Your task to perform on an android device: Check out the best rated 4k TV on Best Buy. Image 0: 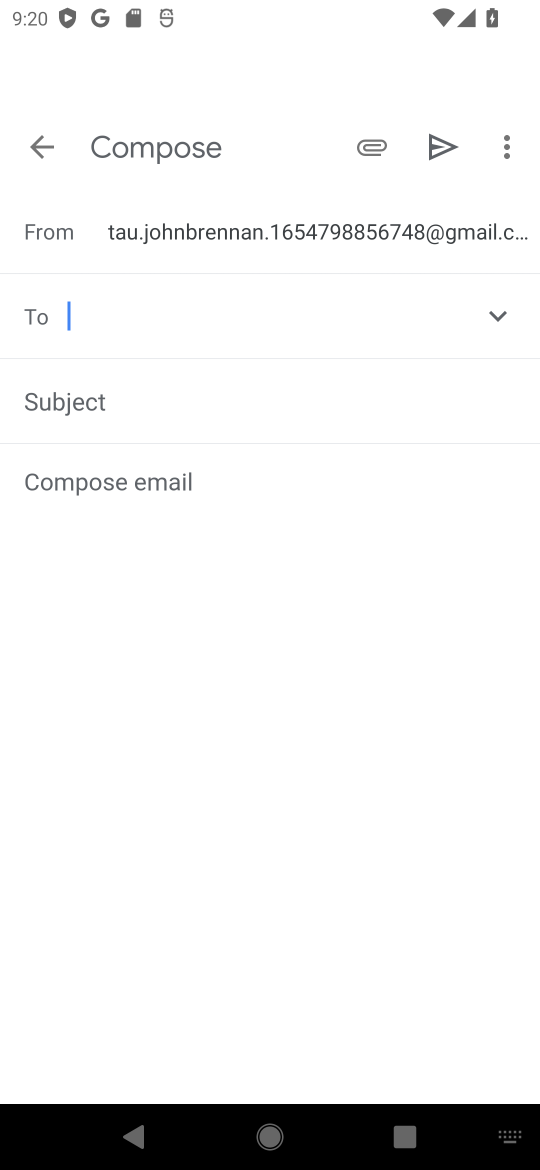
Step 0: press home button
Your task to perform on an android device: Check out the best rated 4k TV on Best Buy. Image 1: 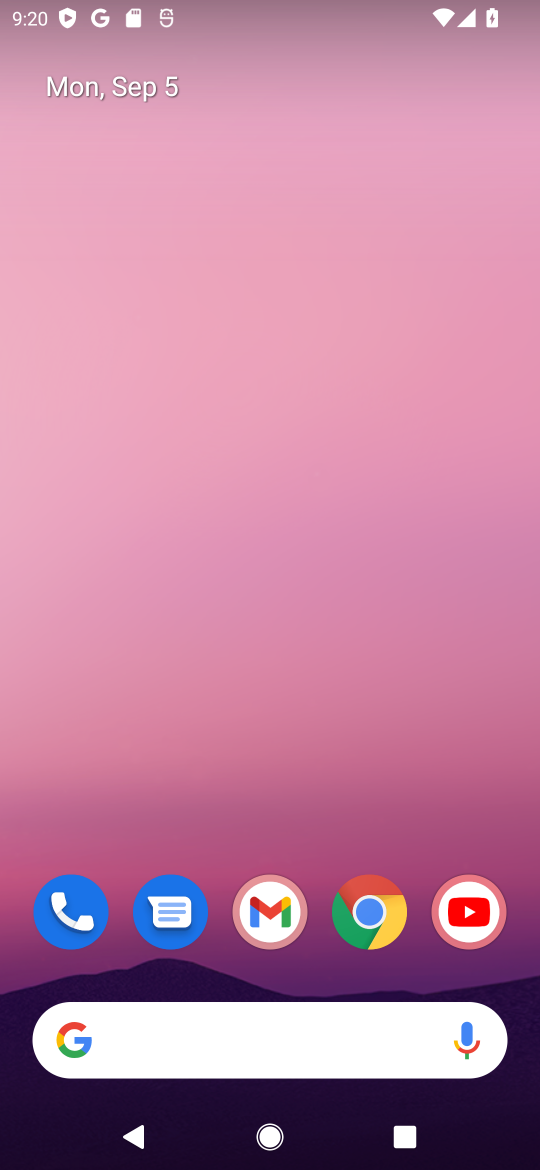
Step 1: click (351, 920)
Your task to perform on an android device: Check out the best rated 4k TV on Best Buy. Image 2: 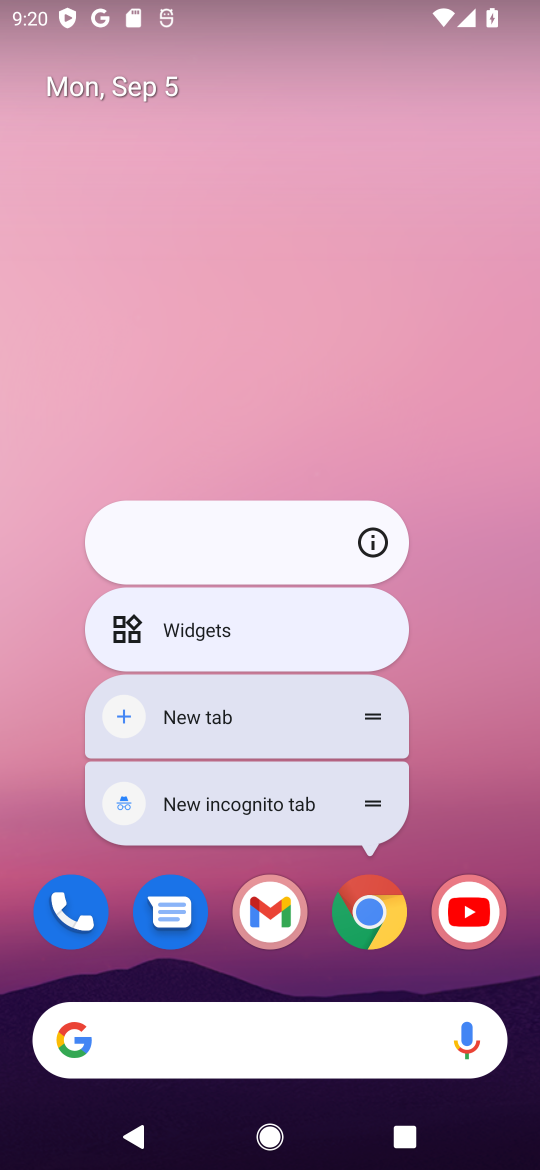
Step 2: click (385, 906)
Your task to perform on an android device: Check out the best rated 4k TV on Best Buy. Image 3: 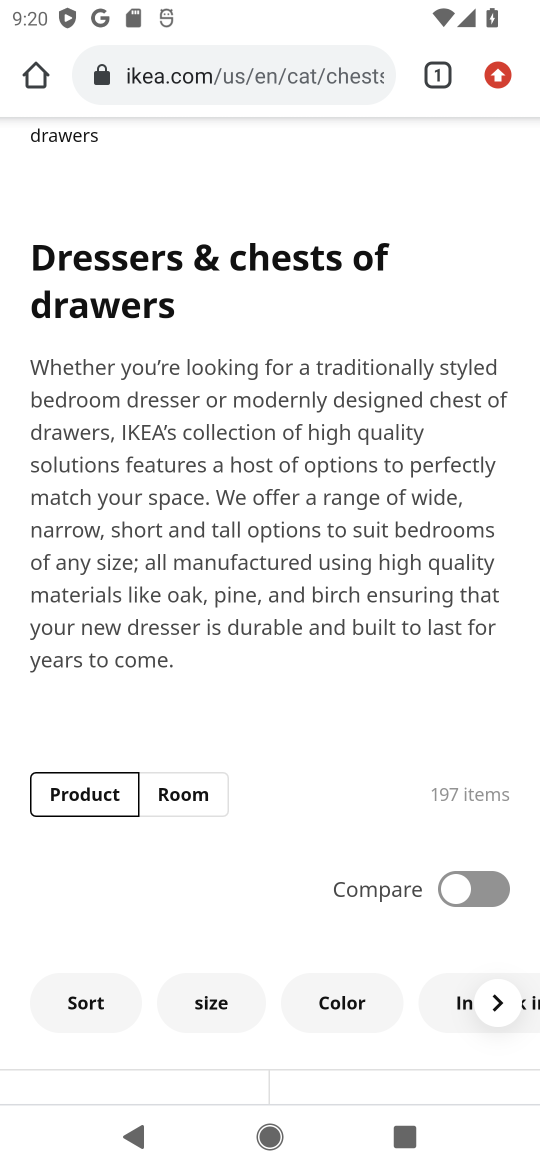
Step 3: click (269, 81)
Your task to perform on an android device: Check out the best rated 4k TV on Best Buy. Image 4: 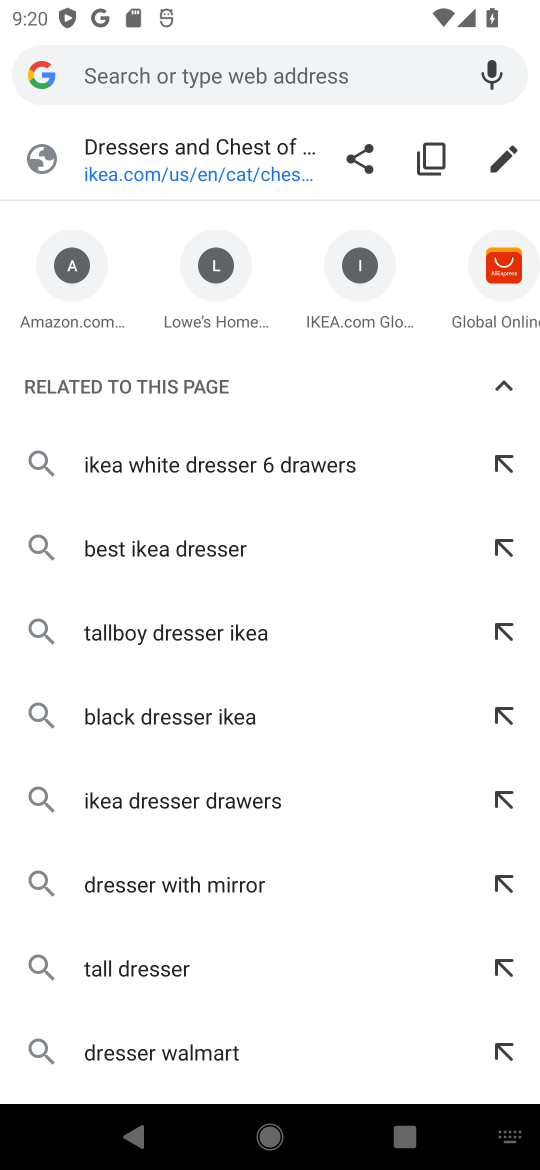
Step 4: type "best buy"
Your task to perform on an android device: Check out the best rated 4k TV on Best Buy. Image 5: 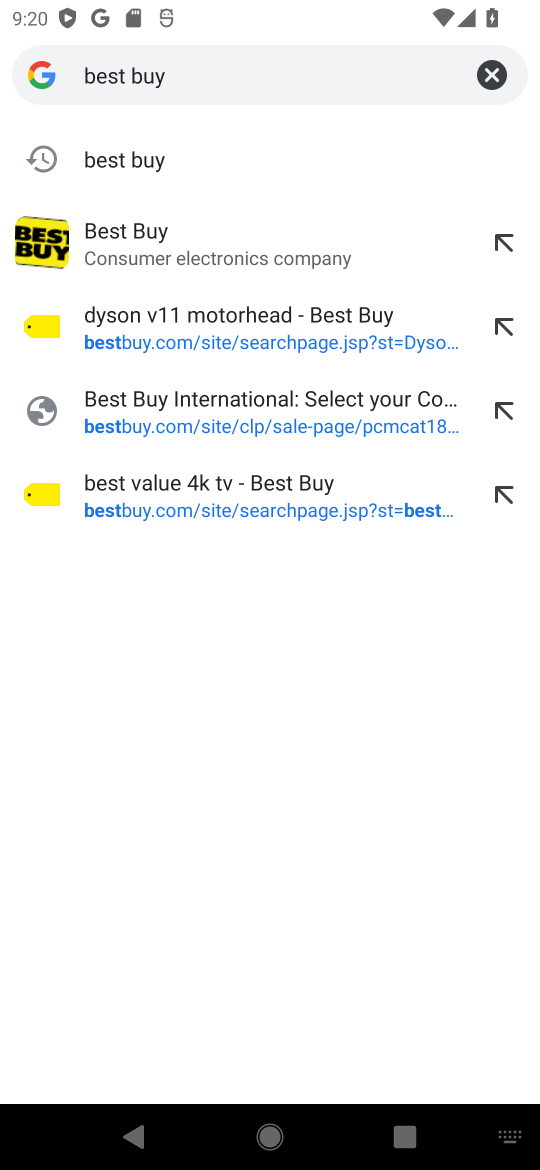
Step 5: press enter
Your task to perform on an android device: Check out the best rated 4k TV on Best Buy. Image 6: 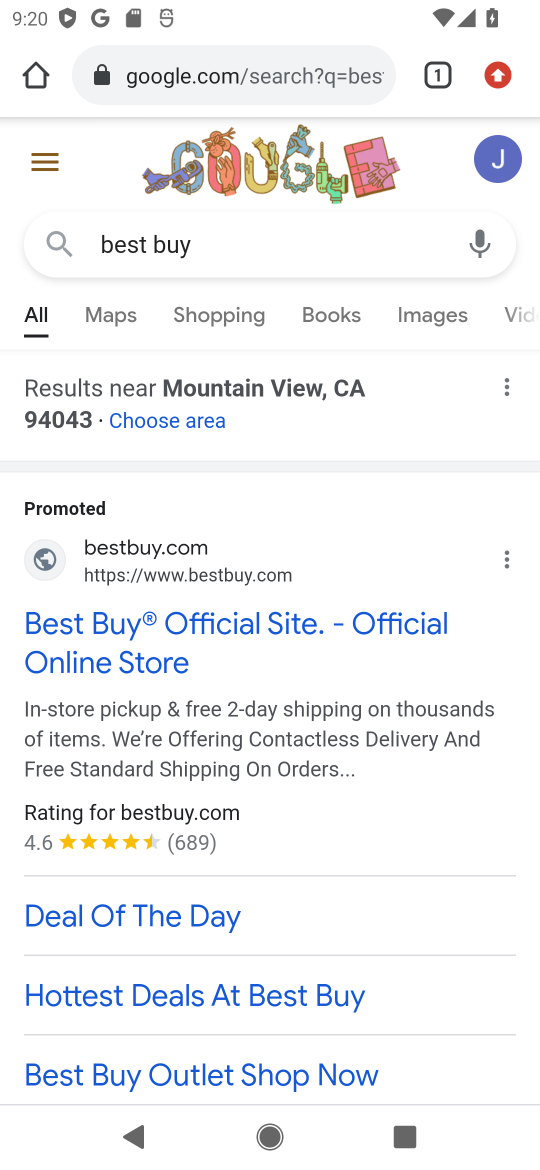
Step 6: click (129, 622)
Your task to perform on an android device: Check out the best rated 4k TV on Best Buy. Image 7: 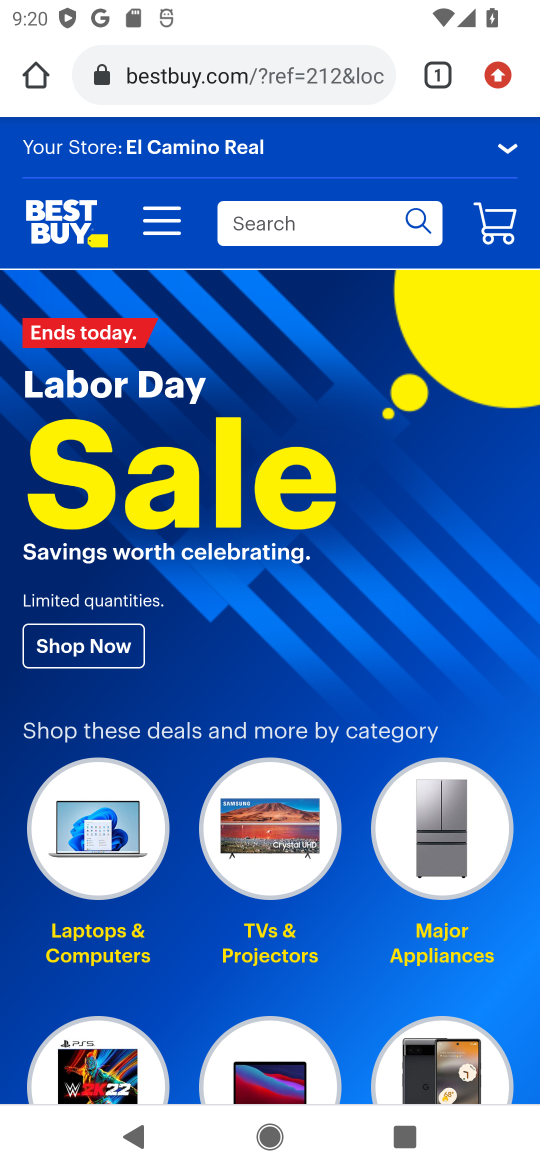
Step 7: click (319, 225)
Your task to perform on an android device: Check out the best rated 4k TV on Best Buy. Image 8: 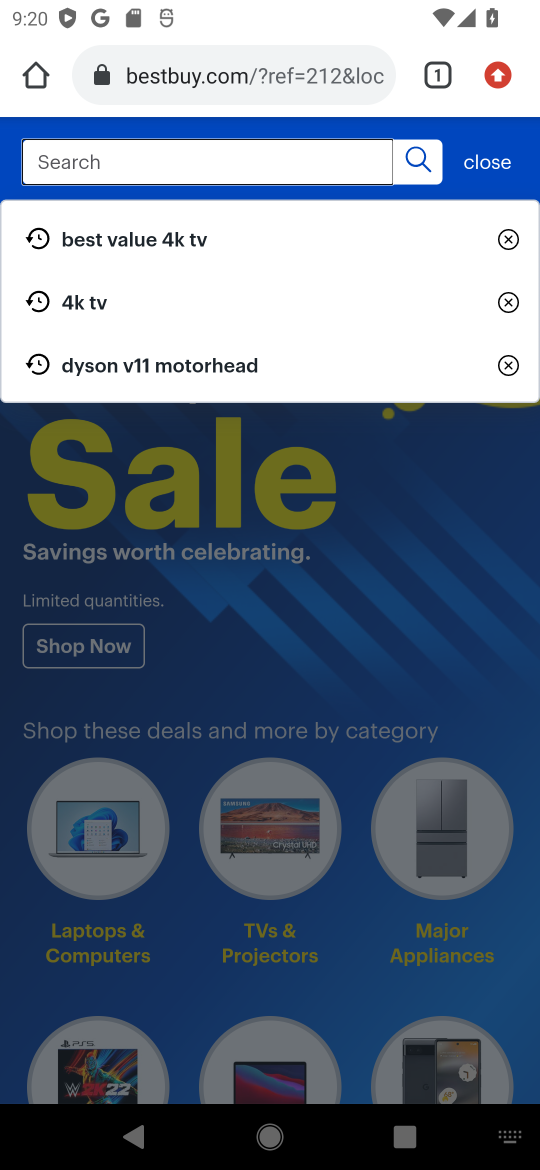
Step 8: type "best rated 4k tv"
Your task to perform on an android device: Check out the best rated 4k TV on Best Buy. Image 9: 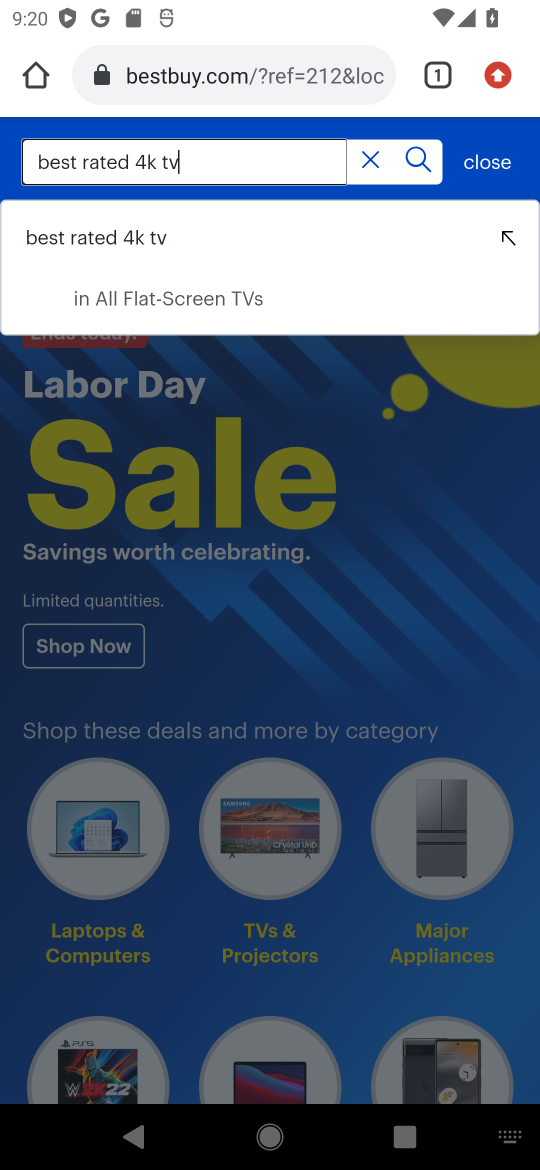
Step 9: press enter
Your task to perform on an android device: Check out the best rated 4k TV on Best Buy. Image 10: 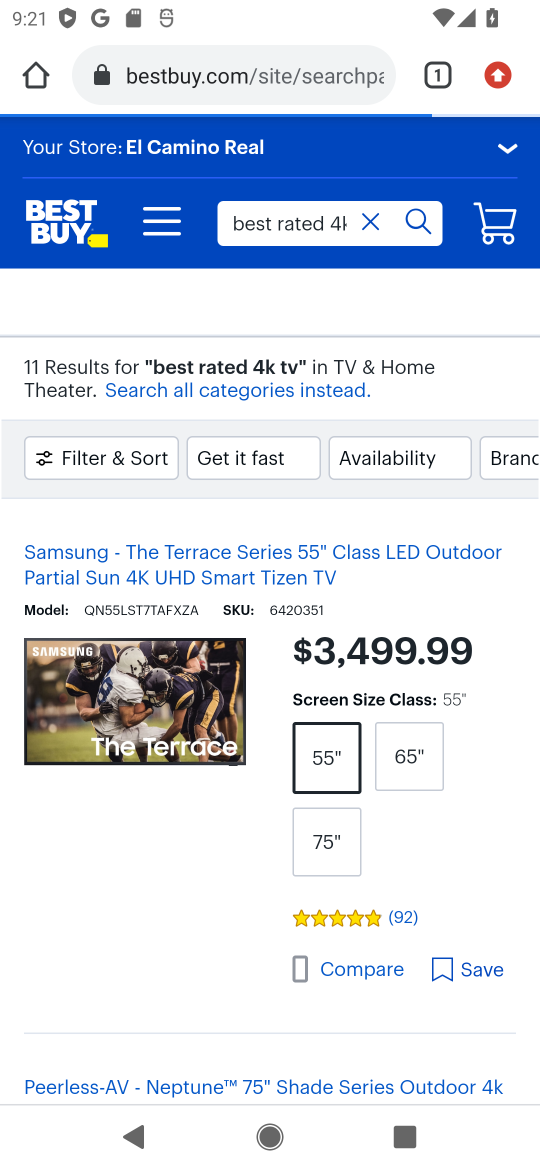
Step 10: click (85, 469)
Your task to perform on an android device: Check out the best rated 4k TV on Best Buy. Image 11: 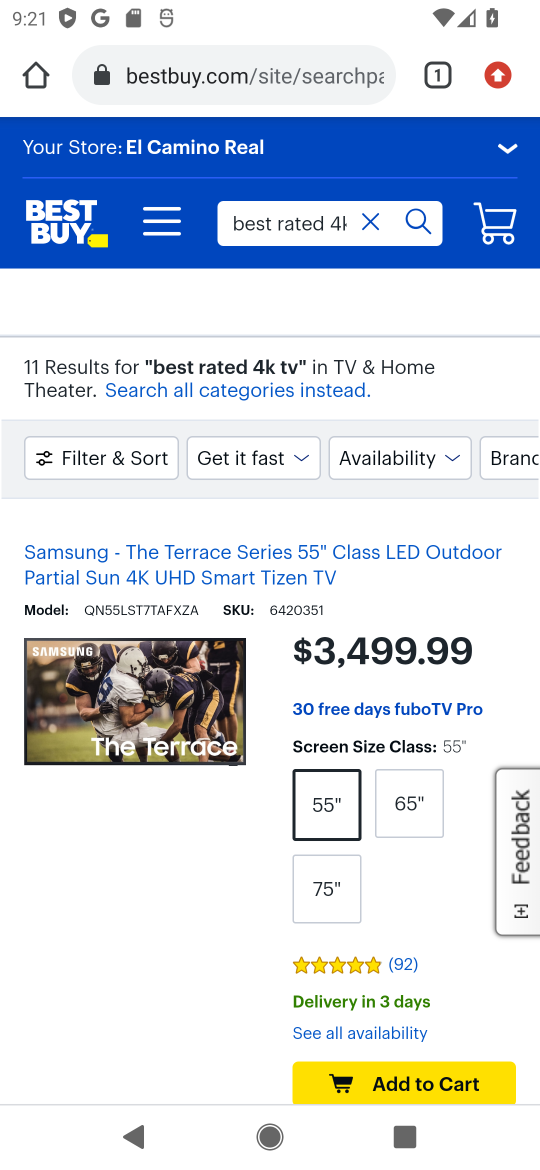
Step 11: click (95, 455)
Your task to perform on an android device: Check out the best rated 4k TV on Best Buy. Image 12: 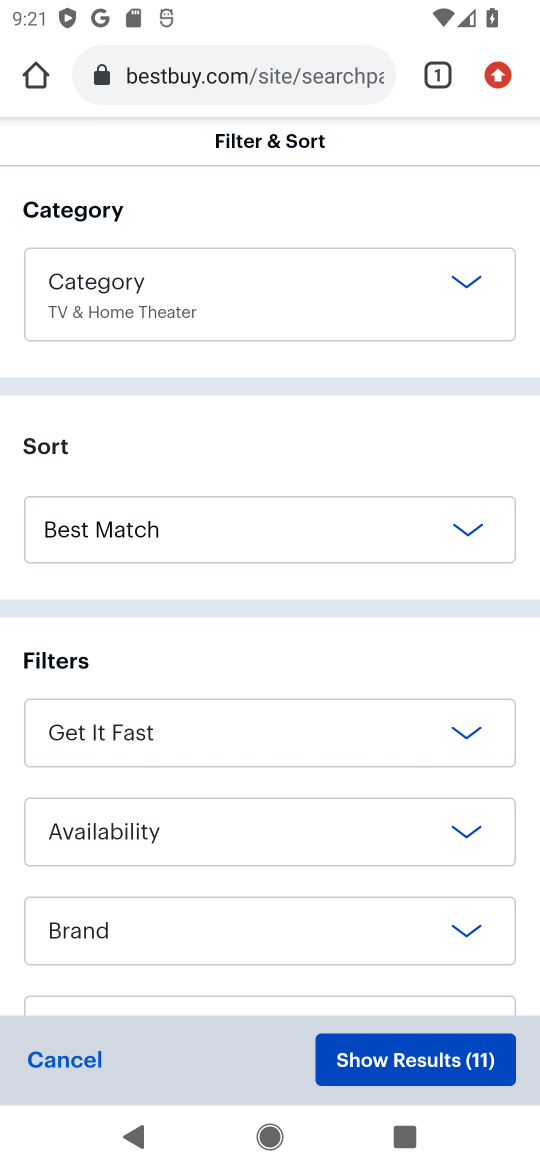
Step 12: drag from (271, 714) to (294, 298)
Your task to perform on an android device: Check out the best rated 4k TV on Best Buy. Image 13: 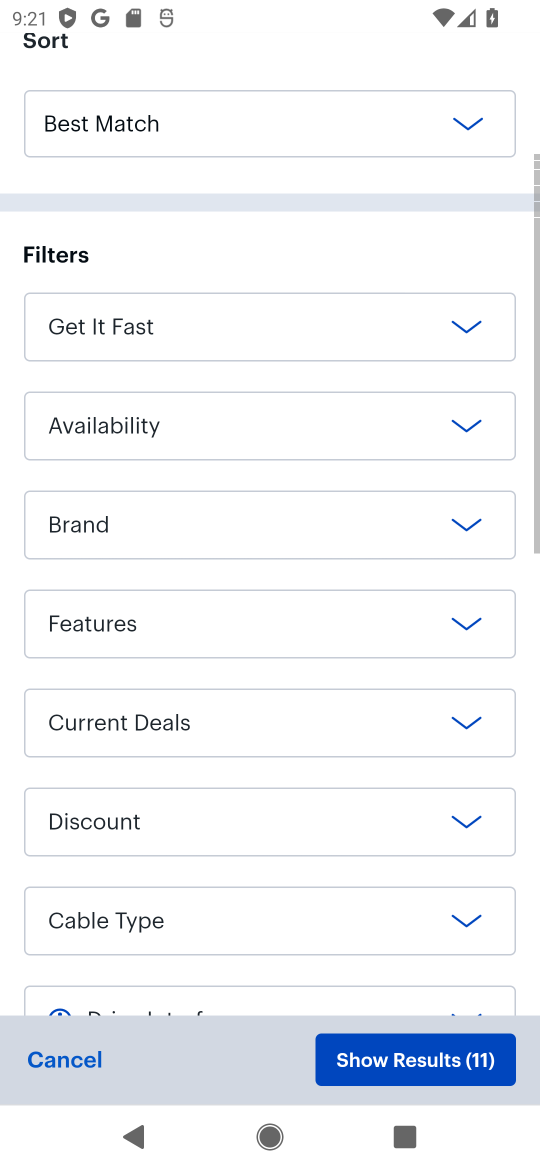
Step 13: drag from (231, 871) to (238, 328)
Your task to perform on an android device: Check out the best rated 4k TV on Best Buy. Image 14: 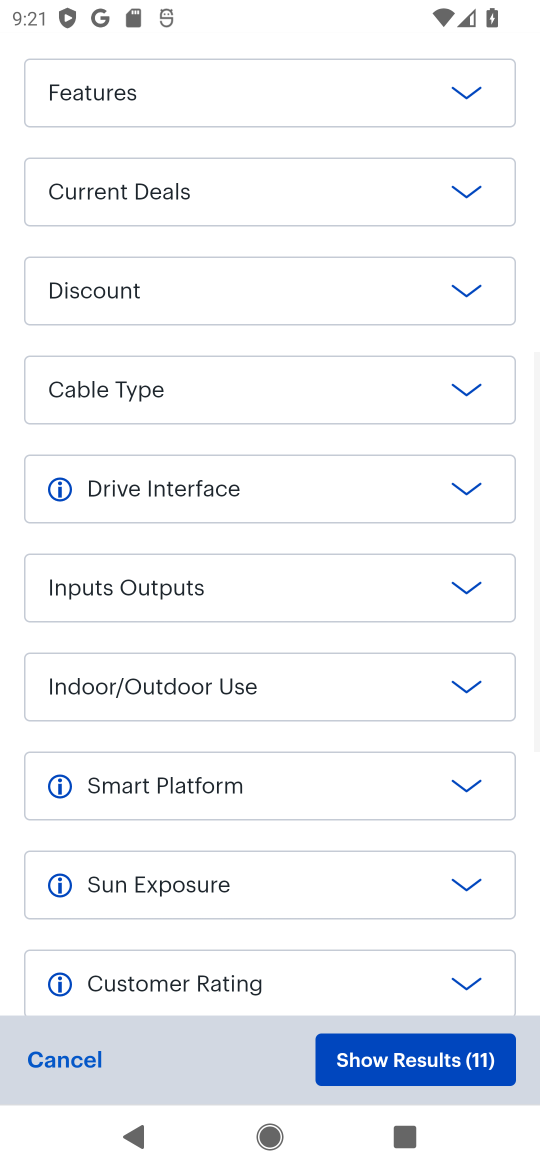
Step 14: drag from (228, 862) to (246, 479)
Your task to perform on an android device: Check out the best rated 4k TV on Best Buy. Image 15: 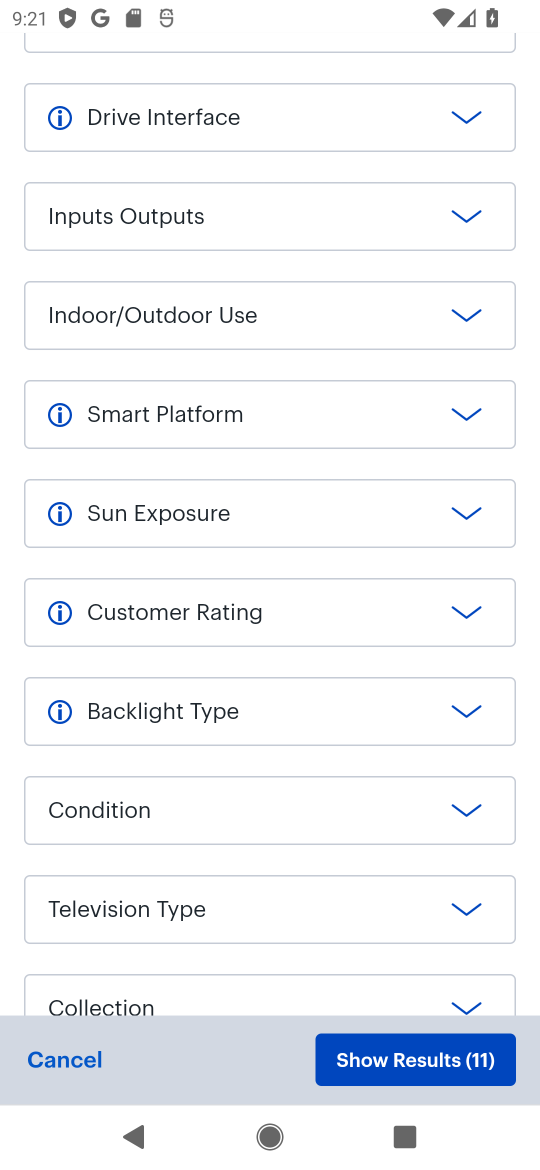
Step 15: click (324, 611)
Your task to perform on an android device: Check out the best rated 4k TV on Best Buy. Image 16: 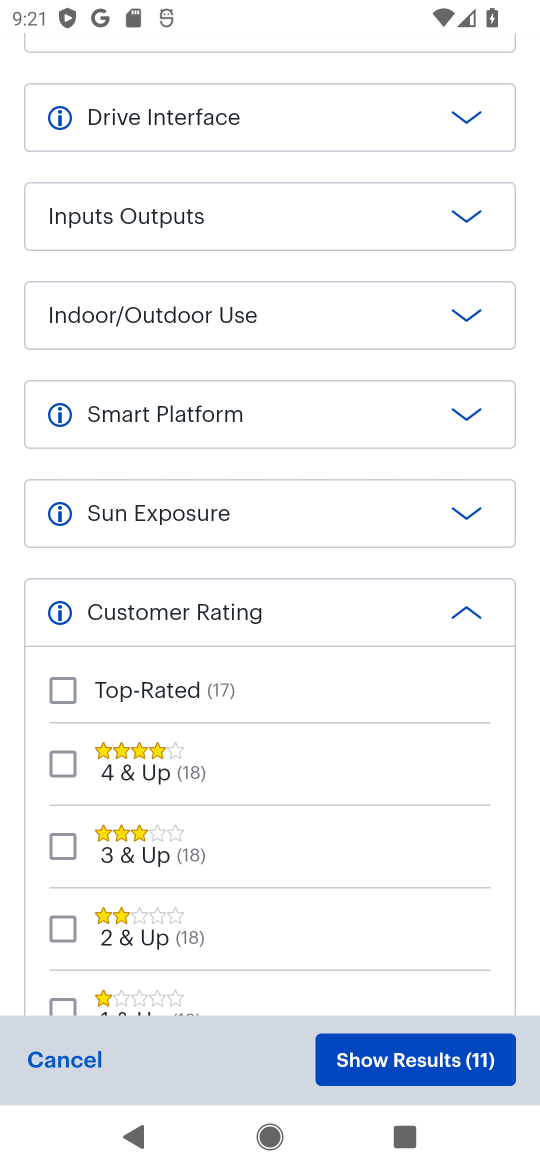
Step 16: click (65, 686)
Your task to perform on an android device: Check out the best rated 4k TV on Best Buy. Image 17: 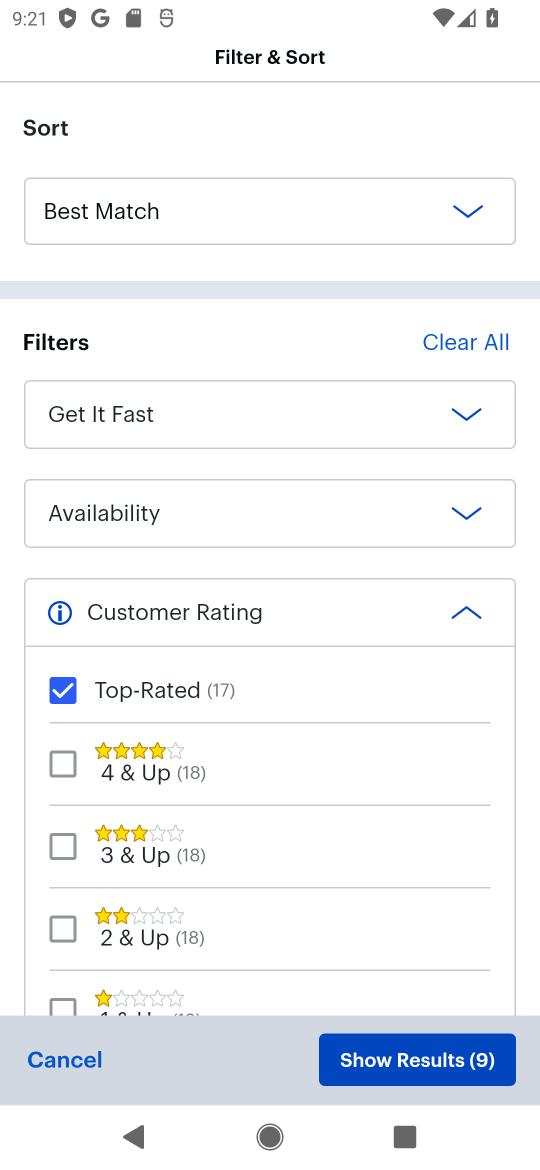
Step 17: click (465, 1074)
Your task to perform on an android device: Check out the best rated 4k TV on Best Buy. Image 18: 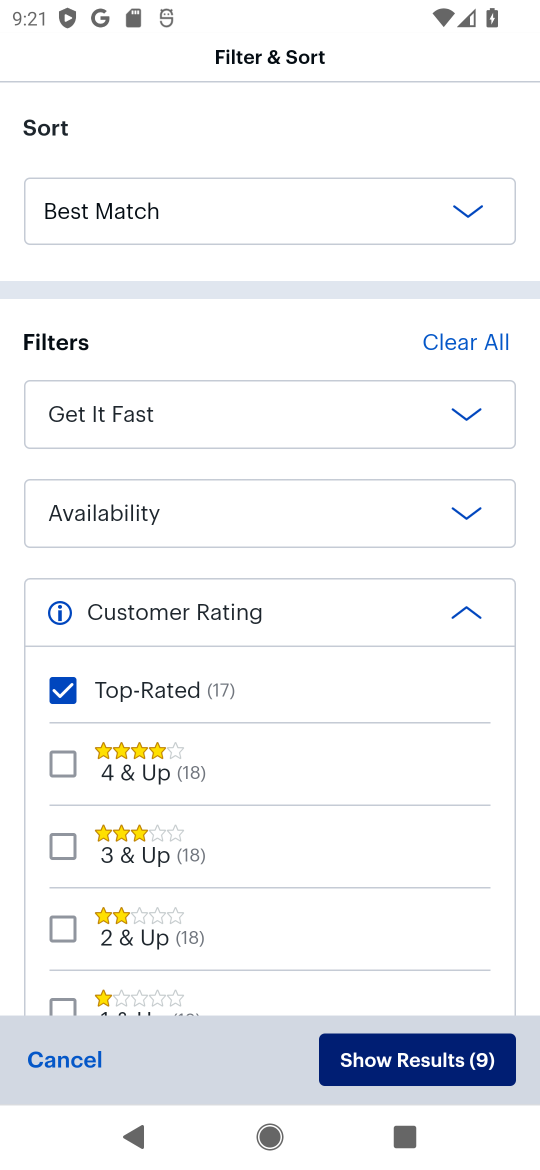
Step 18: click (441, 1075)
Your task to perform on an android device: Check out the best rated 4k TV on Best Buy. Image 19: 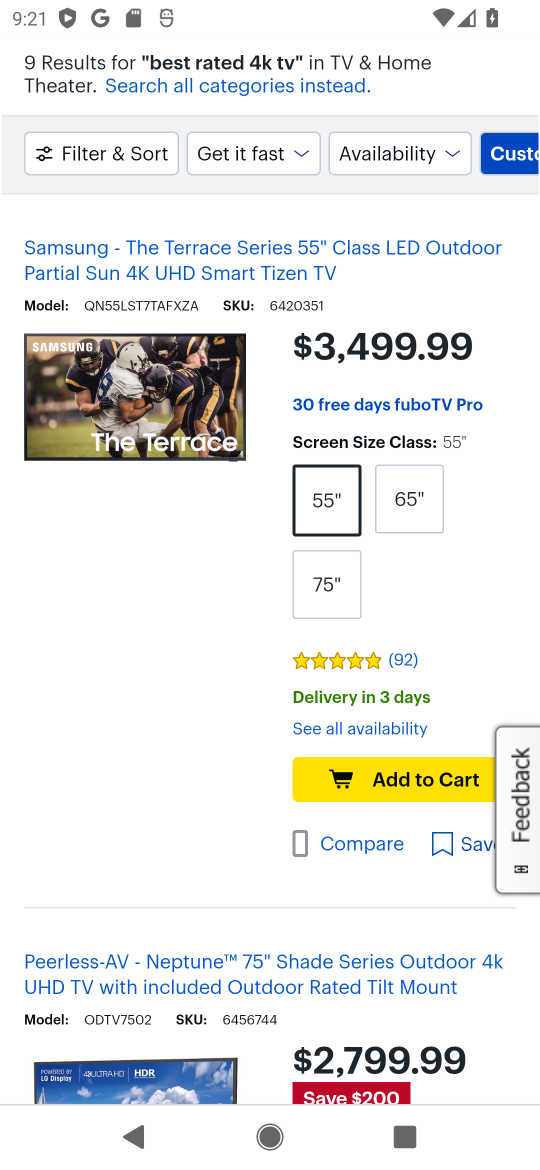
Step 19: task complete